Your task to perform on an android device: remove spam from my inbox in the gmail app Image 0: 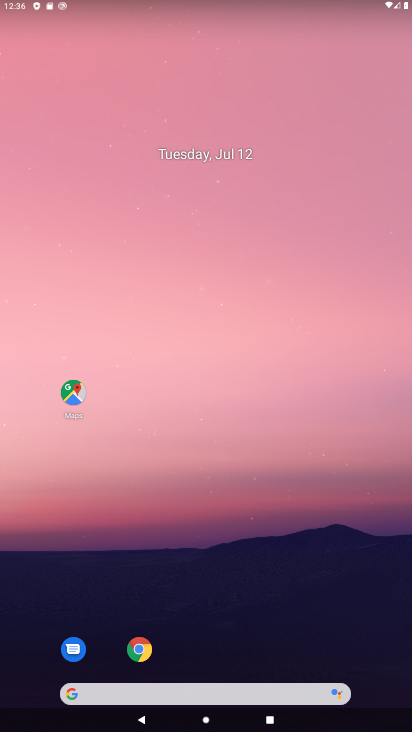
Step 0: drag from (361, 629) to (331, 149)
Your task to perform on an android device: remove spam from my inbox in the gmail app Image 1: 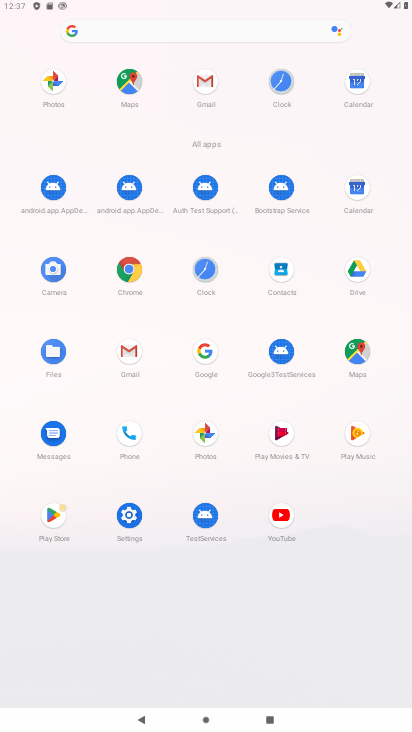
Step 1: click (204, 81)
Your task to perform on an android device: remove spam from my inbox in the gmail app Image 2: 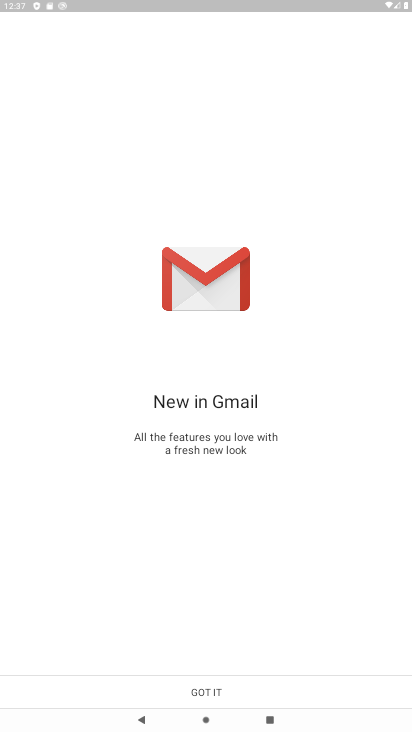
Step 2: click (208, 689)
Your task to perform on an android device: remove spam from my inbox in the gmail app Image 3: 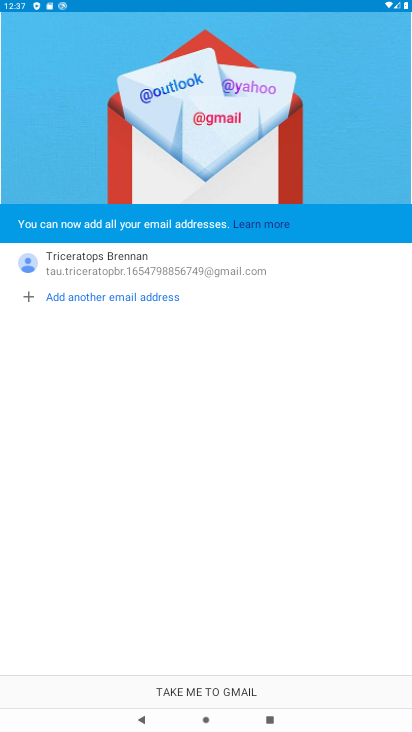
Step 3: click (208, 689)
Your task to perform on an android device: remove spam from my inbox in the gmail app Image 4: 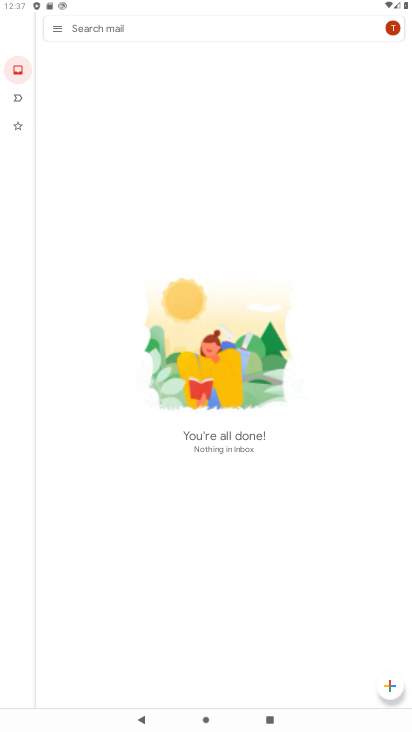
Step 4: click (56, 23)
Your task to perform on an android device: remove spam from my inbox in the gmail app Image 5: 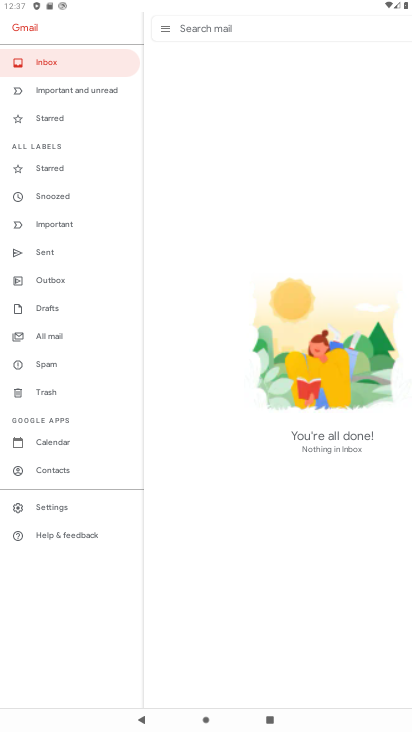
Step 5: click (45, 366)
Your task to perform on an android device: remove spam from my inbox in the gmail app Image 6: 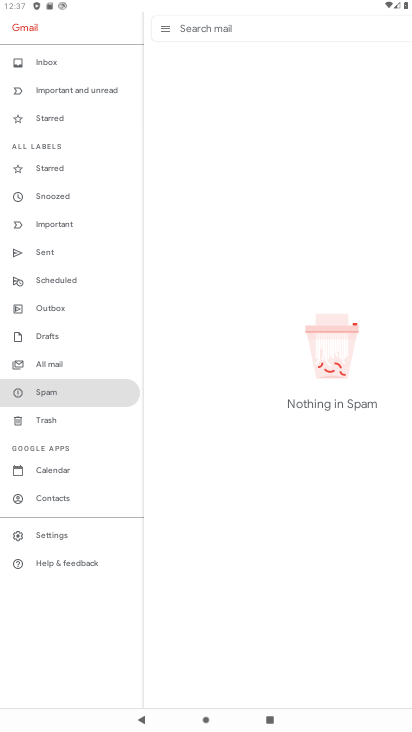
Step 6: task complete